Your task to perform on an android device: turn on sleep mode Image 0: 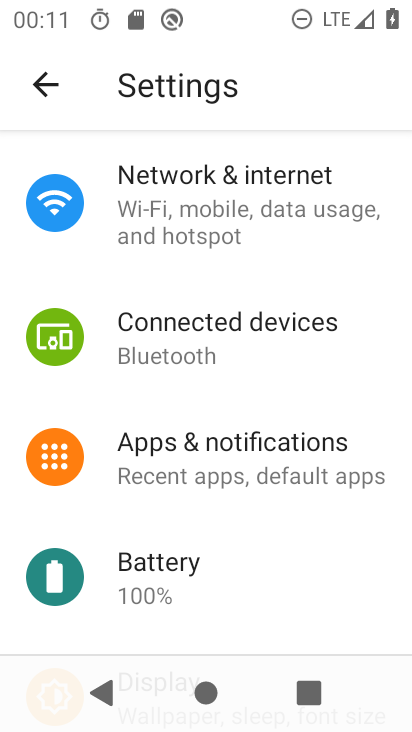
Step 0: drag from (214, 537) to (219, 283)
Your task to perform on an android device: turn on sleep mode Image 1: 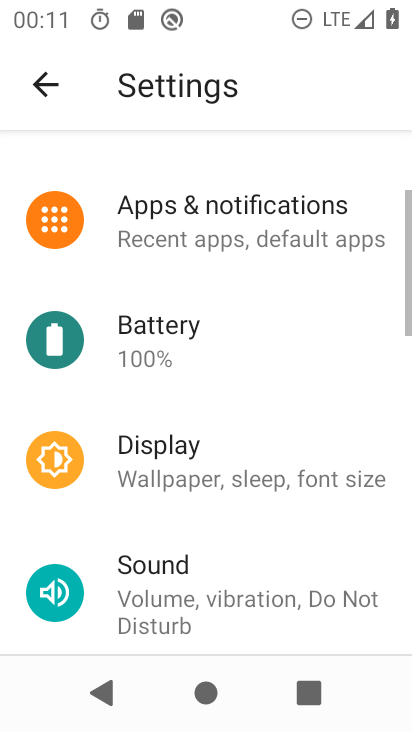
Step 1: click (216, 466)
Your task to perform on an android device: turn on sleep mode Image 2: 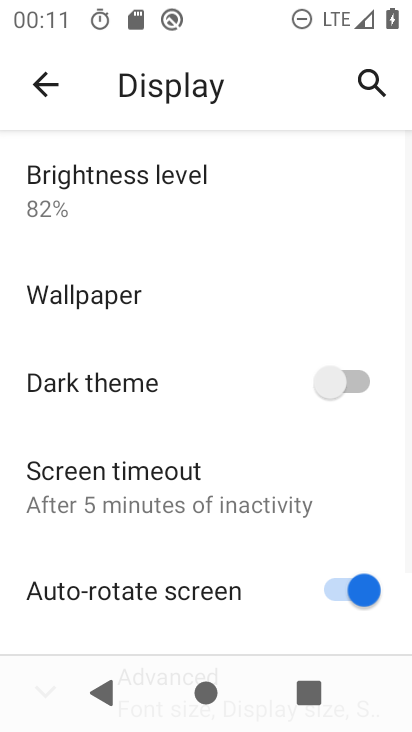
Step 2: click (196, 488)
Your task to perform on an android device: turn on sleep mode Image 3: 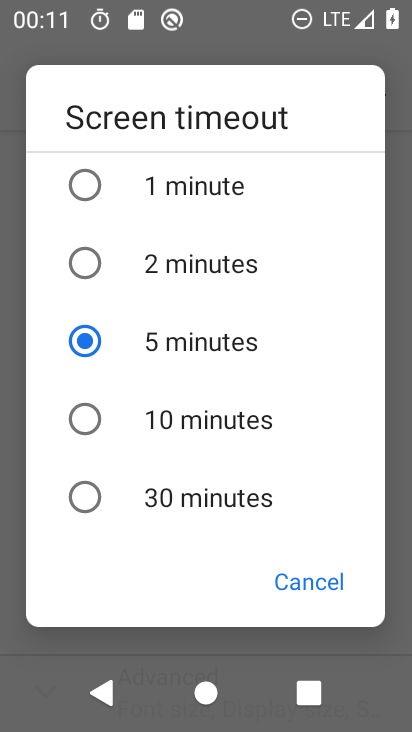
Step 3: click (147, 498)
Your task to perform on an android device: turn on sleep mode Image 4: 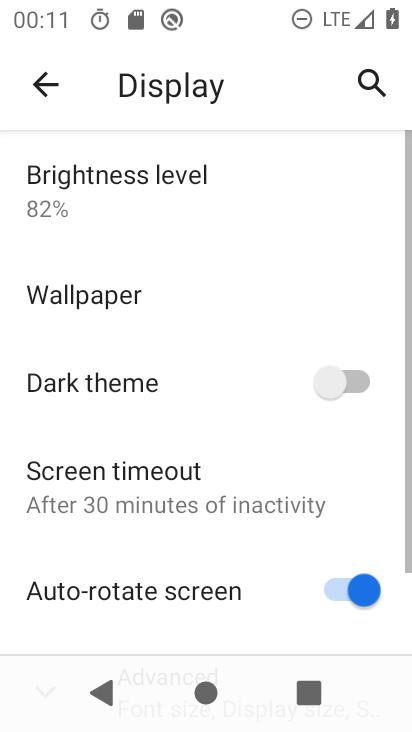
Step 4: task complete